Your task to perform on an android device: turn on improve location accuracy Image 0: 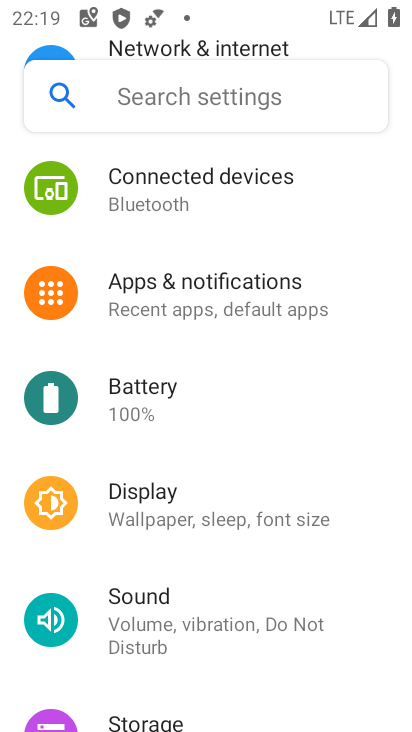
Step 0: press home button
Your task to perform on an android device: turn on improve location accuracy Image 1: 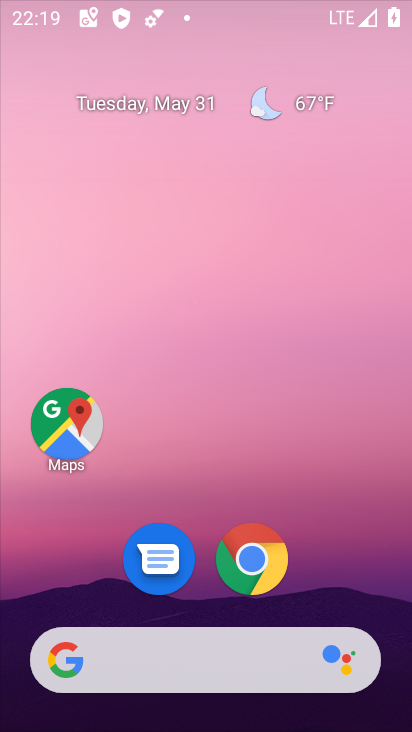
Step 1: drag from (328, 574) to (341, 66)
Your task to perform on an android device: turn on improve location accuracy Image 2: 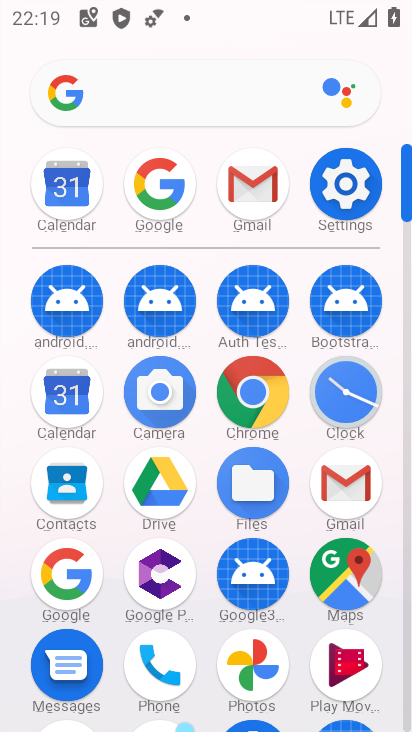
Step 2: click (339, 185)
Your task to perform on an android device: turn on improve location accuracy Image 3: 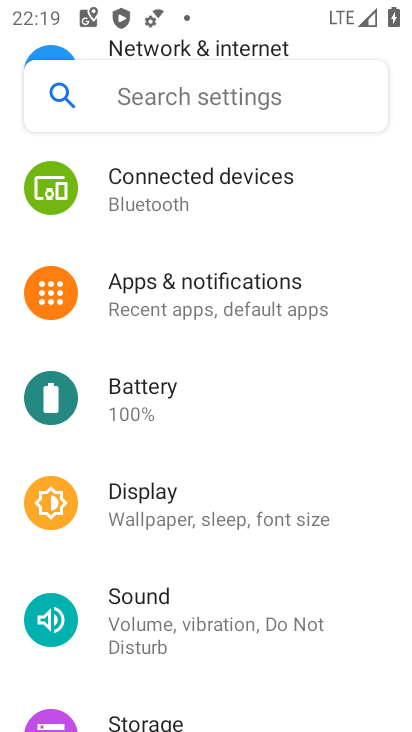
Step 3: drag from (239, 654) to (233, 139)
Your task to perform on an android device: turn on improve location accuracy Image 4: 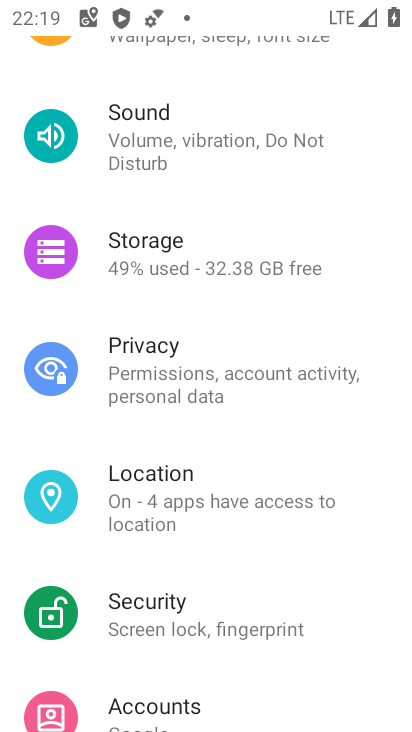
Step 4: click (183, 488)
Your task to perform on an android device: turn on improve location accuracy Image 5: 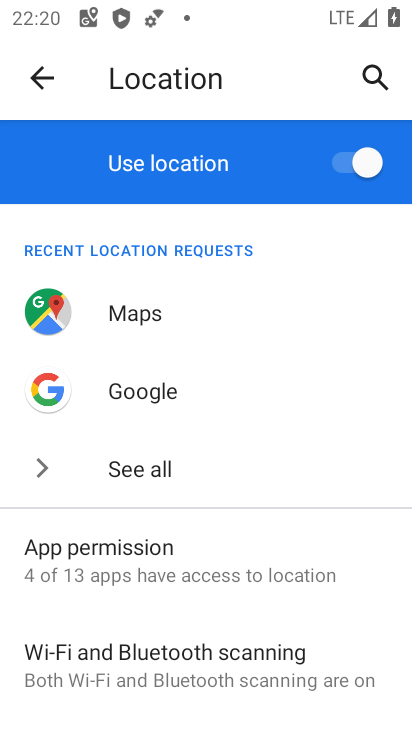
Step 5: task complete